Your task to perform on an android device: check battery use Image 0: 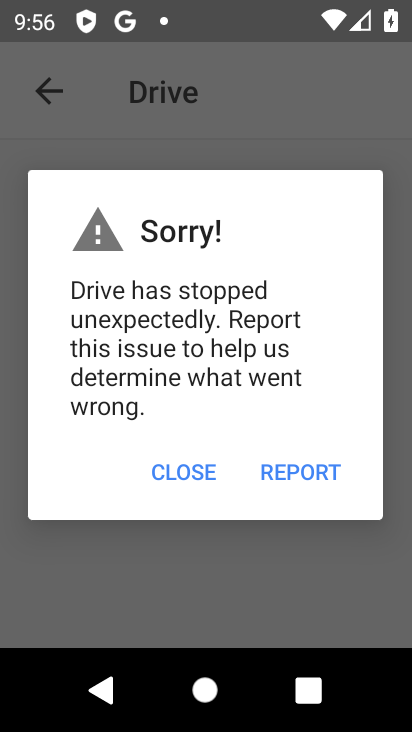
Step 0: press back button
Your task to perform on an android device: check battery use Image 1: 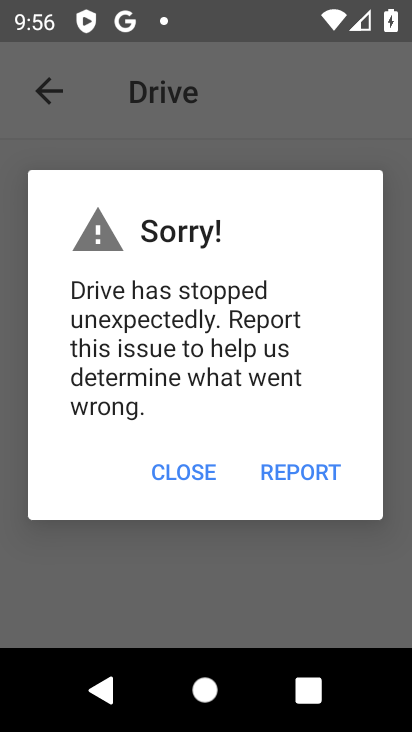
Step 1: press home button
Your task to perform on an android device: check battery use Image 2: 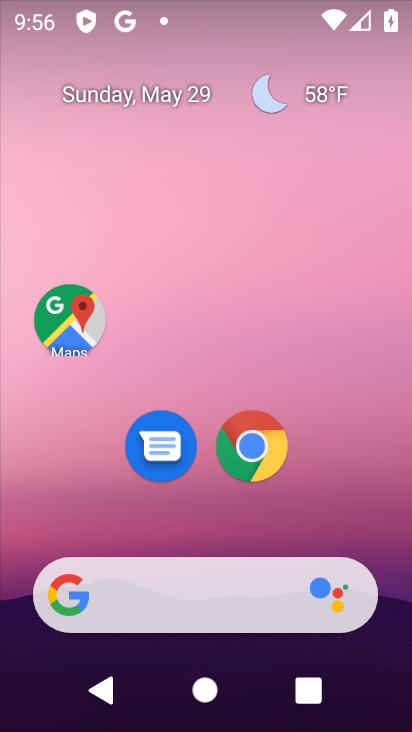
Step 2: drag from (321, 449) to (217, 9)
Your task to perform on an android device: check battery use Image 3: 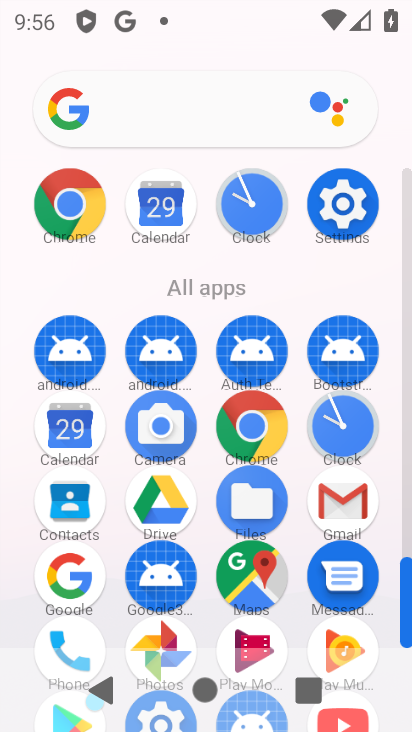
Step 3: click (339, 202)
Your task to perform on an android device: check battery use Image 4: 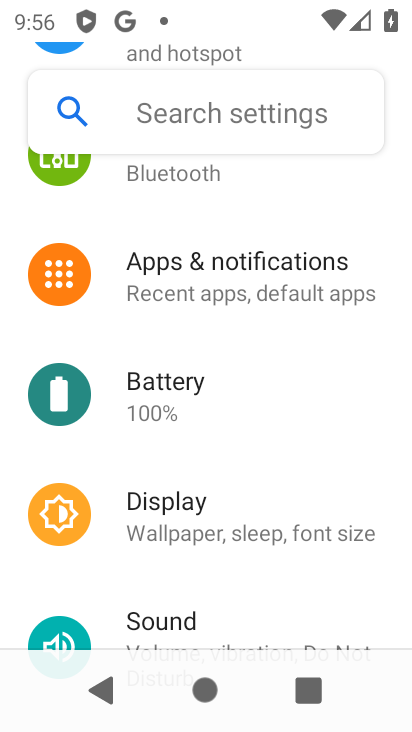
Step 4: click (160, 383)
Your task to perform on an android device: check battery use Image 5: 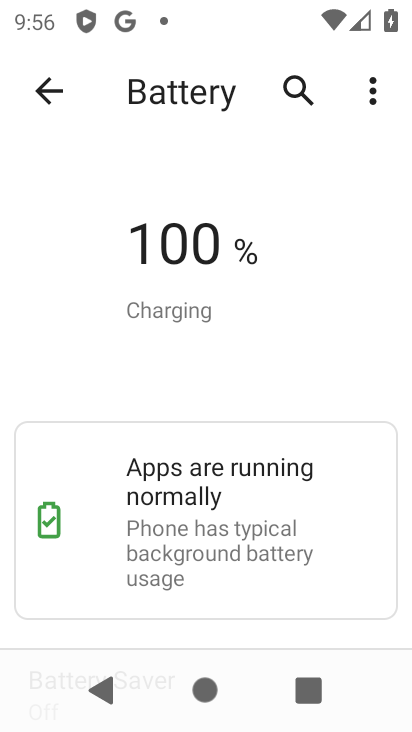
Step 5: task complete